Your task to perform on an android device: Open calendar and show me the third week of next month Image 0: 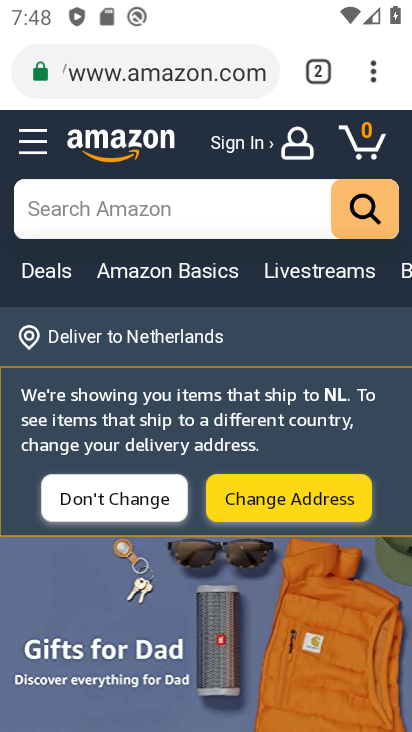
Step 0: press home button
Your task to perform on an android device: Open calendar and show me the third week of next month Image 1: 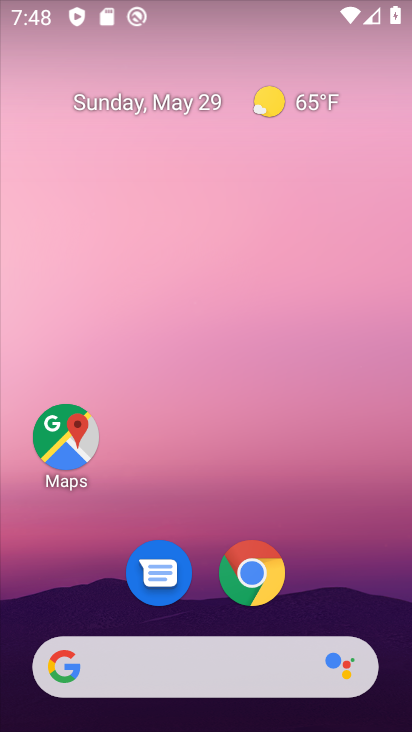
Step 1: drag from (200, 611) to (229, 279)
Your task to perform on an android device: Open calendar and show me the third week of next month Image 2: 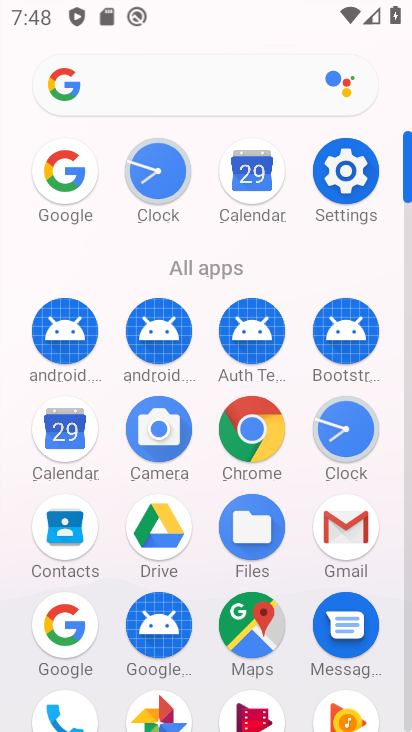
Step 2: click (46, 444)
Your task to perform on an android device: Open calendar and show me the third week of next month Image 3: 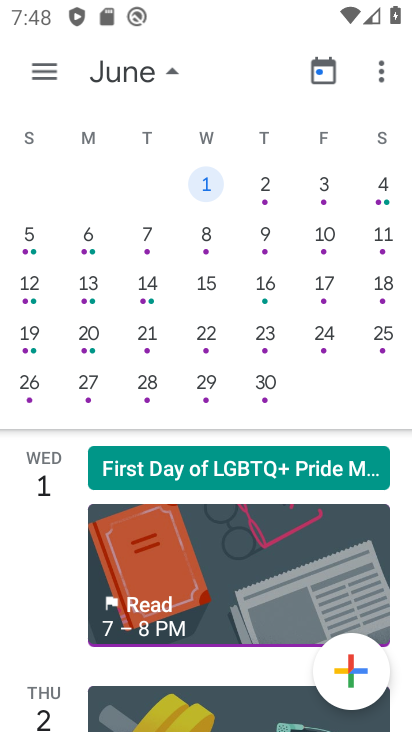
Step 3: click (31, 294)
Your task to perform on an android device: Open calendar and show me the third week of next month Image 4: 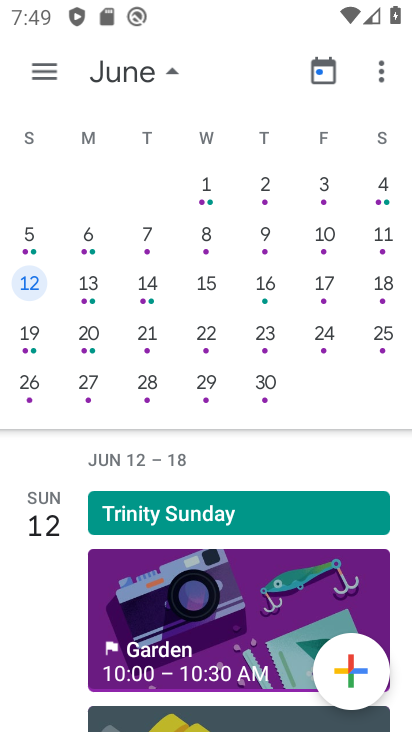
Step 4: click (73, 267)
Your task to perform on an android device: Open calendar and show me the third week of next month Image 5: 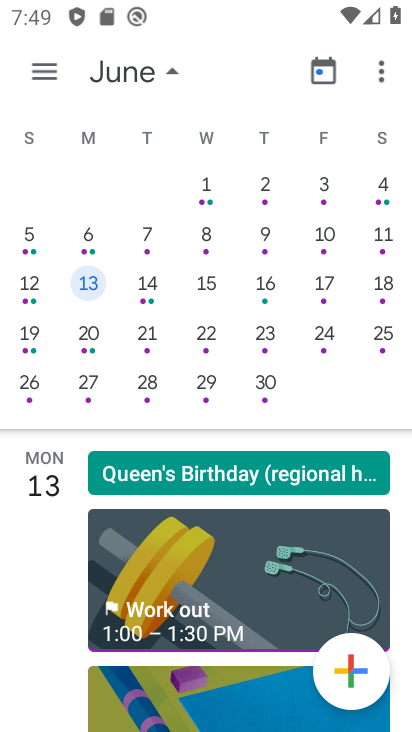
Step 5: click (145, 279)
Your task to perform on an android device: Open calendar and show me the third week of next month Image 6: 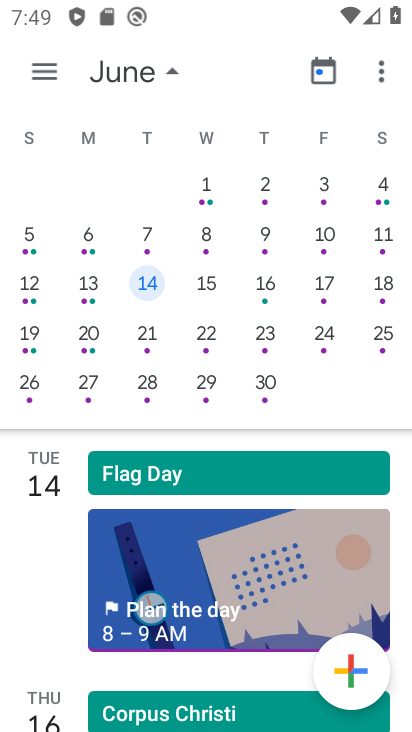
Step 6: task complete